Your task to perform on an android device: Open Yahoo.com Image 0: 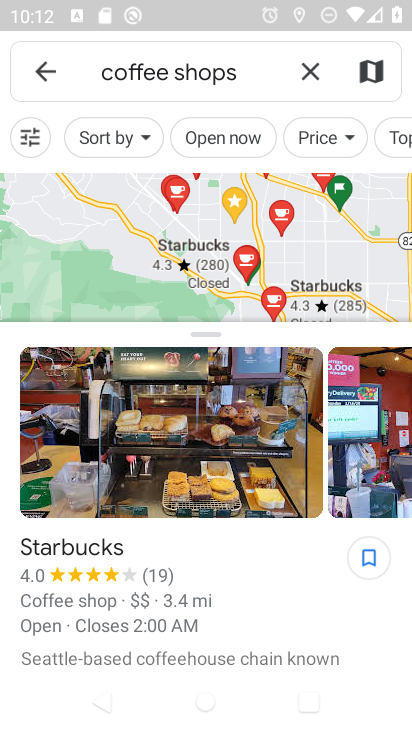
Step 0: task complete